Your task to perform on an android device: turn on the 12-hour format for clock Image 0: 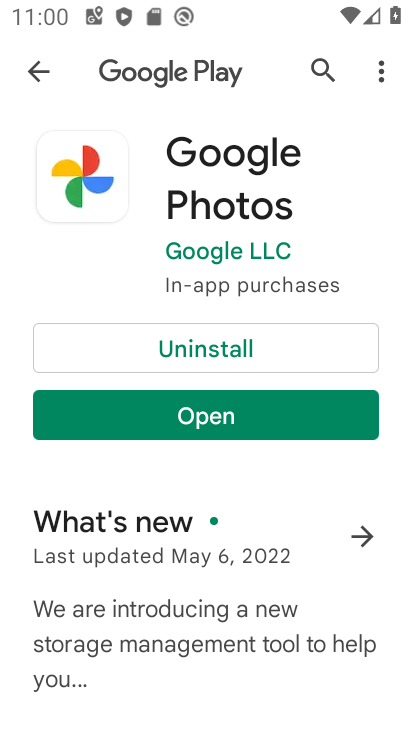
Step 0: press home button
Your task to perform on an android device: turn on the 12-hour format for clock Image 1: 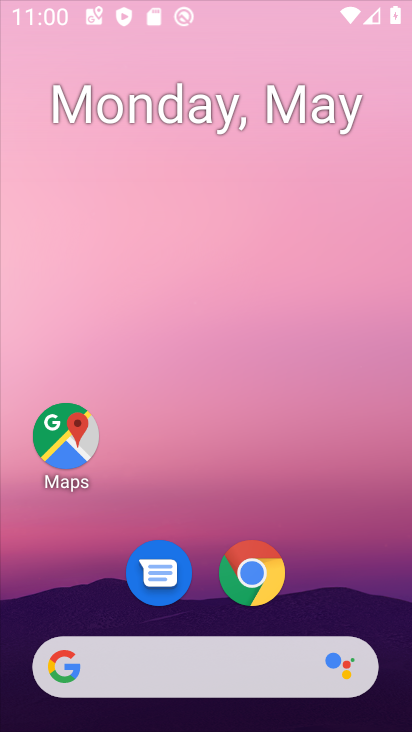
Step 1: drag from (318, 568) to (260, 0)
Your task to perform on an android device: turn on the 12-hour format for clock Image 2: 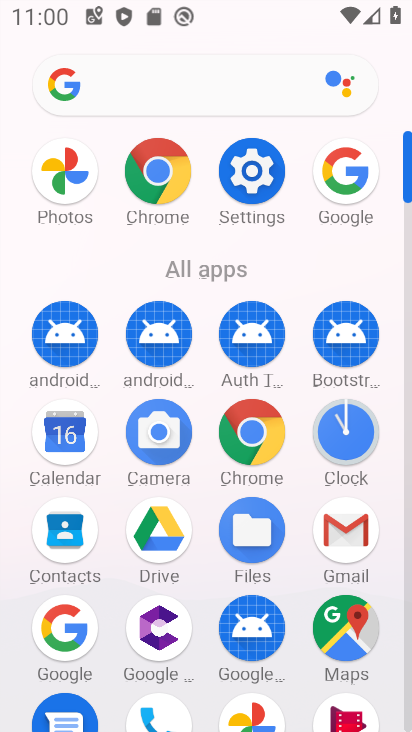
Step 2: click (345, 407)
Your task to perform on an android device: turn on the 12-hour format for clock Image 3: 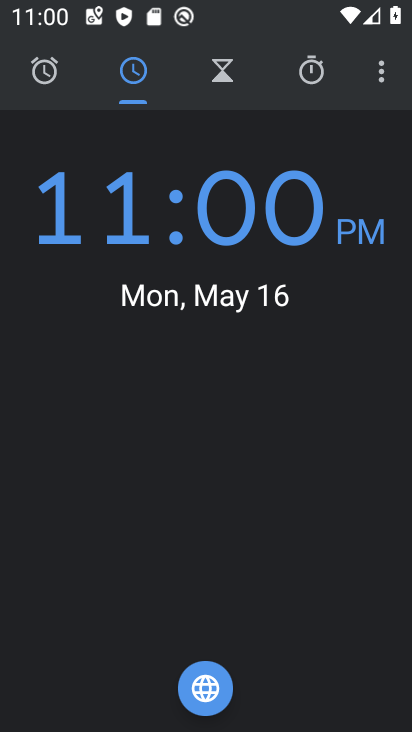
Step 3: click (383, 56)
Your task to perform on an android device: turn on the 12-hour format for clock Image 4: 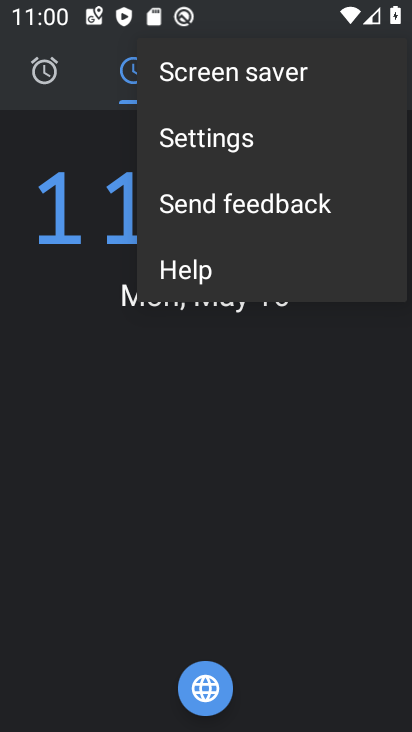
Step 4: click (302, 140)
Your task to perform on an android device: turn on the 12-hour format for clock Image 5: 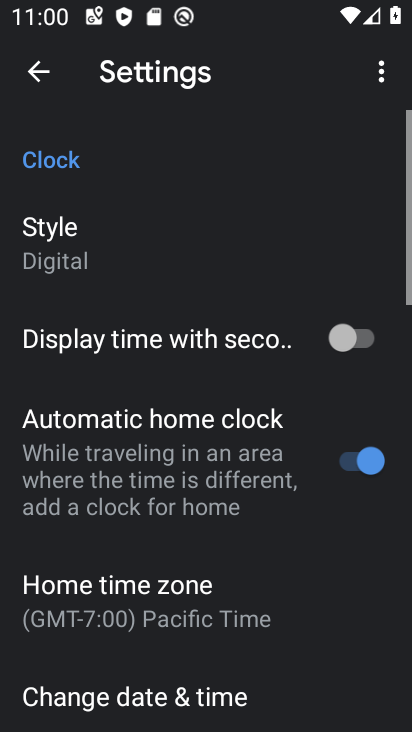
Step 5: click (238, 685)
Your task to perform on an android device: turn on the 12-hour format for clock Image 6: 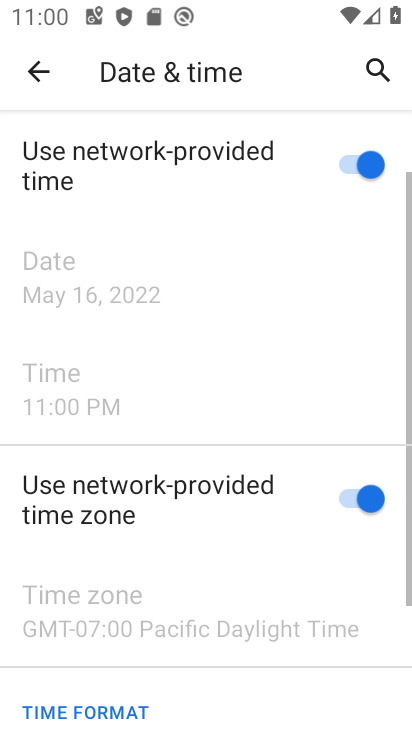
Step 6: task complete